Your task to perform on an android device: Open battery settings Image 0: 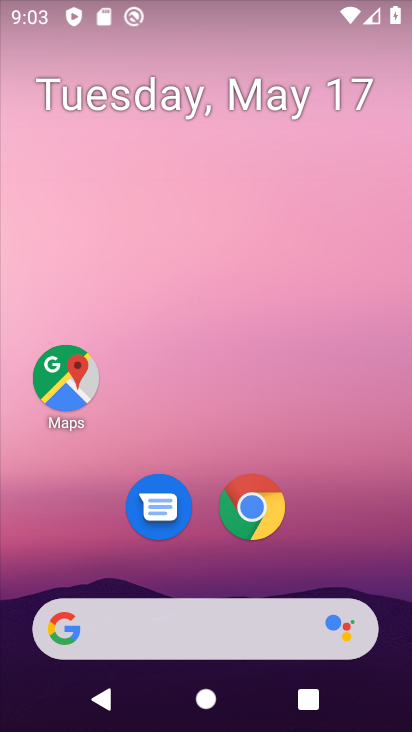
Step 0: drag from (220, 388) to (194, 75)
Your task to perform on an android device: Open battery settings Image 1: 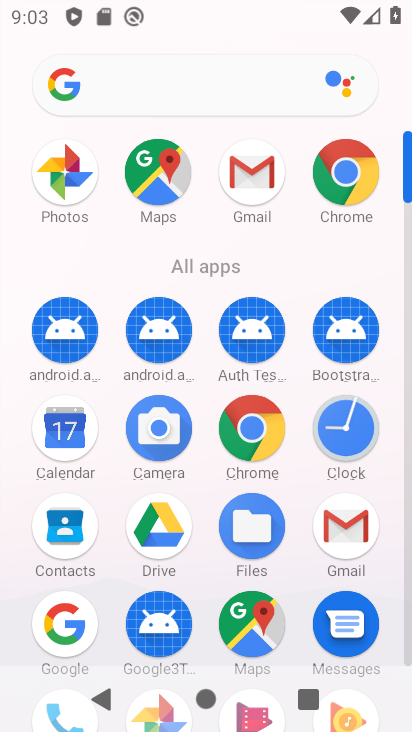
Step 1: drag from (294, 474) to (257, 118)
Your task to perform on an android device: Open battery settings Image 2: 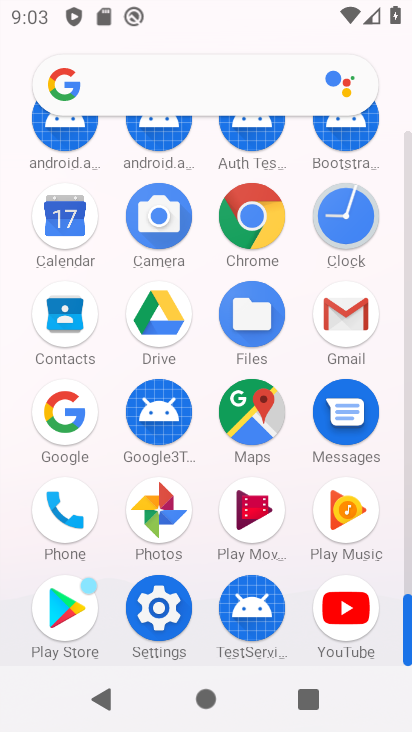
Step 2: click (156, 603)
Your task to perform on an android device: Open battery settings Image 3: 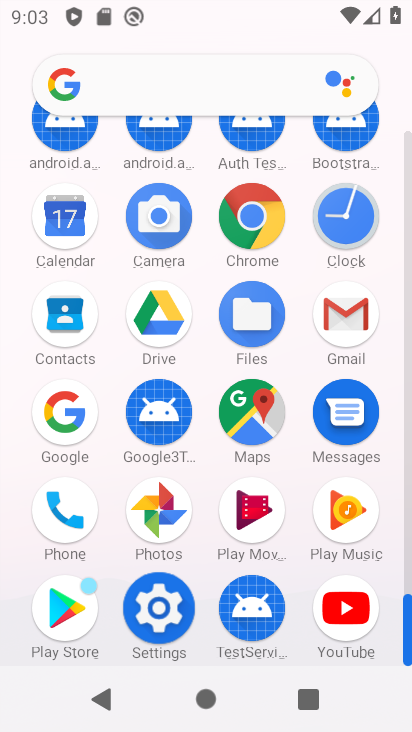
Step 3: click (155, 604)
Your task to perform on an android device: Open battery settings Image 4: 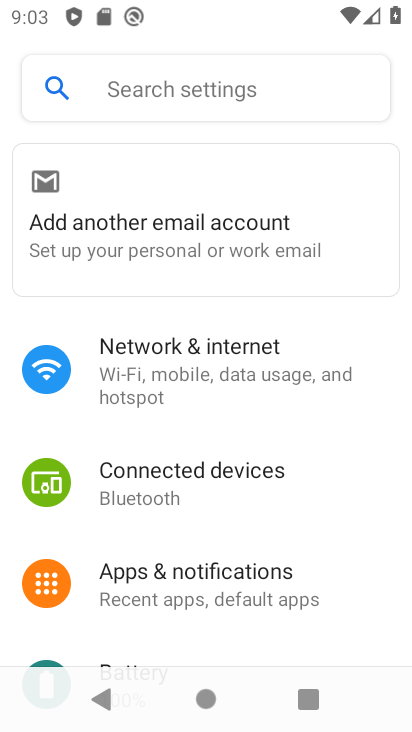
Step 4: drag from (157, 207) to (260, 227)
Your task to perform on an android device: Open battery settings Image 5: 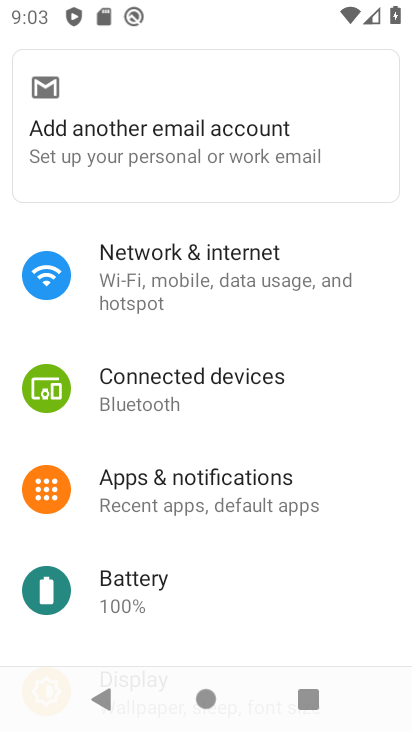
Step 5: drag from (251, 366) to (185, 156)
Your task to perform on an android device: Open battery settings Image 6: 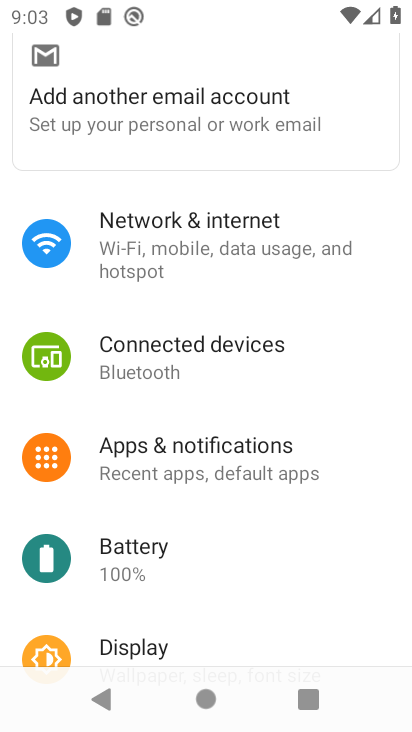
Step 6: drag from (225, 442) to (225, 232)
Your task to perform on an android device: Open battery settings Image 7: 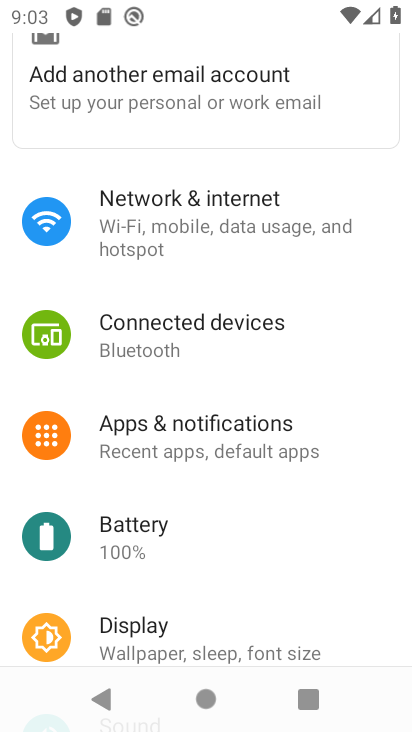
Step 7: click (126, 563)
Your task to perform on an android device: Open battery settings Image 8: 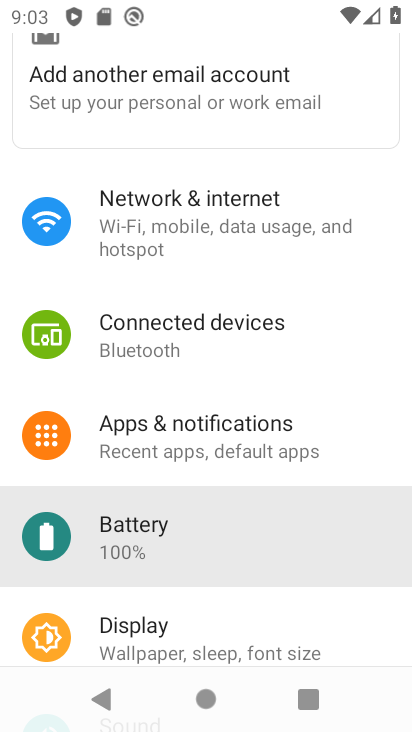
Step 8: click (126, 556)
Your task to perform on an android device: Open battery settings Image 9: 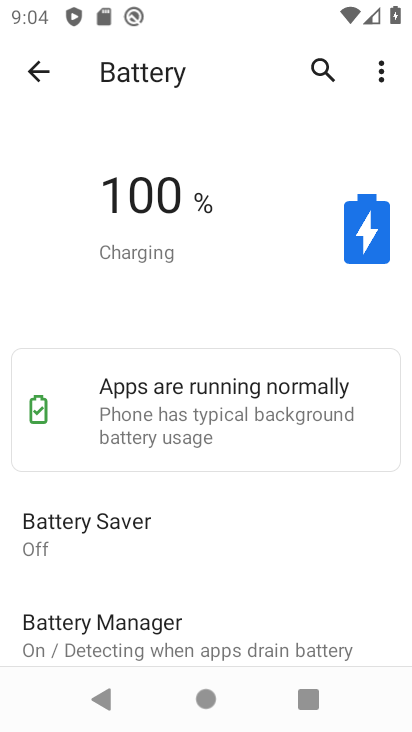
Step 9: click (126, 534)
Your task to perform on an android device: Open battery settings Image 10: 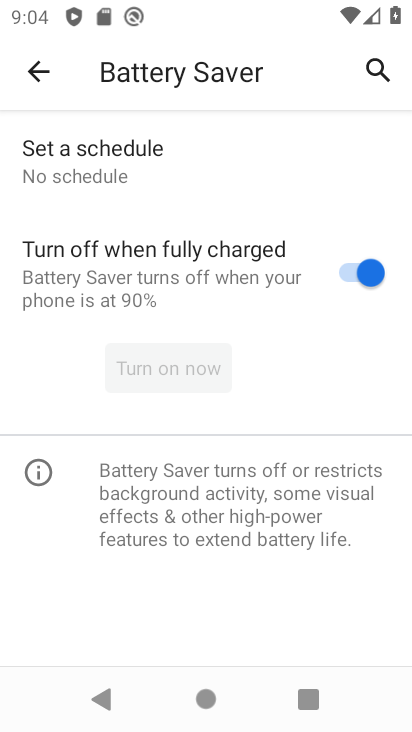
Step 10: task complete